Your task to perform on an android device: open the mobile data screen to see how much data has been used Image 0: 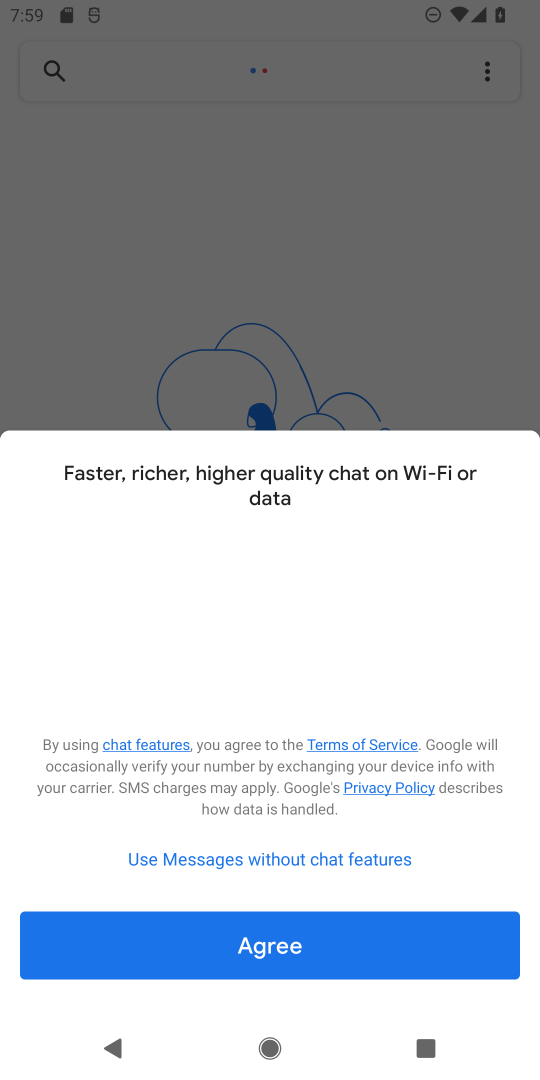
Step 0: press home button
Your task to perform on an android device: open the mobile data screen to see how much data has been used Image 1: 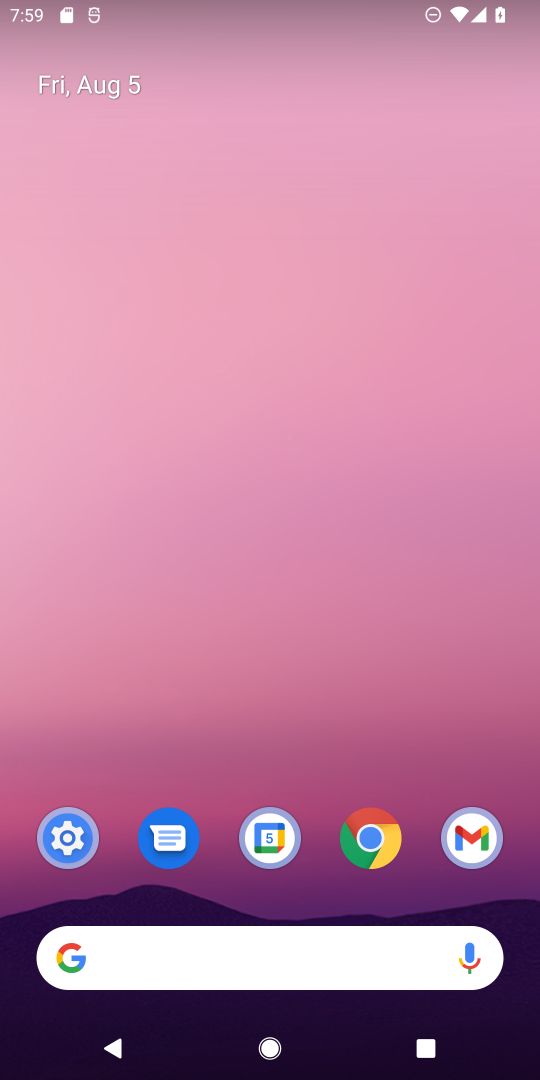
Step 1: click (293, 305)
Your task to perform on an android device: open the mobile data screen to see how much data has been used Image 2: 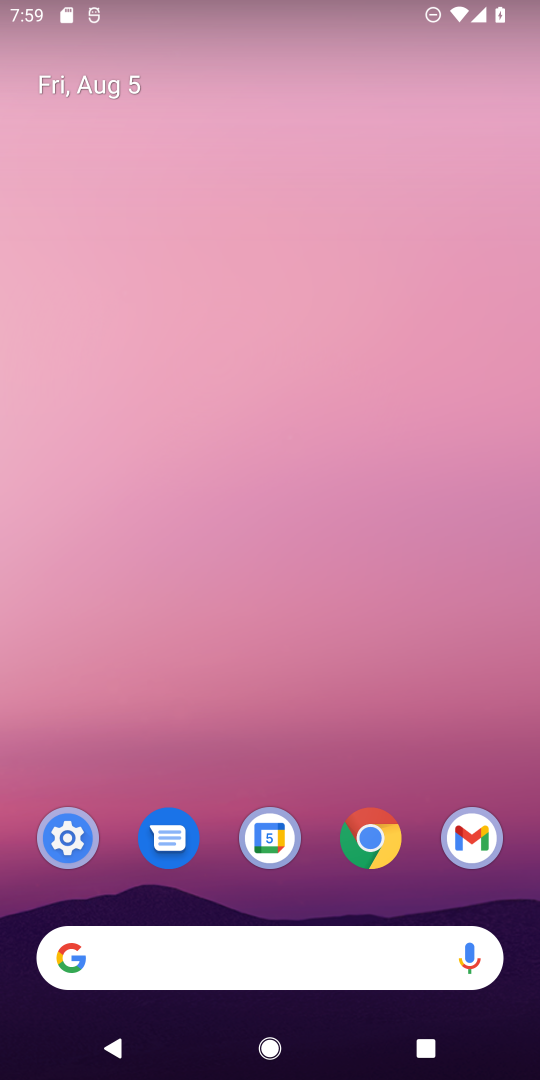
Step 2: drag from (260, 917) to (263, 329)
Your task to perform on an android device: open the mobile data screen to see how much data has been used Image 3: 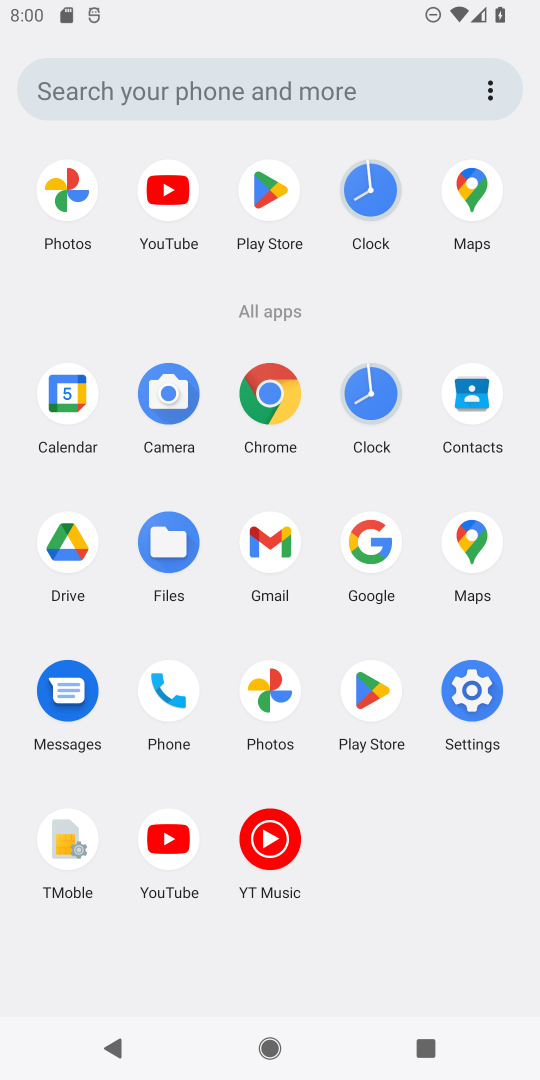
Step 3: click (477, 692)
Your task to perform on an android device: open the mobile data screen to see how much data has been used Image 4: 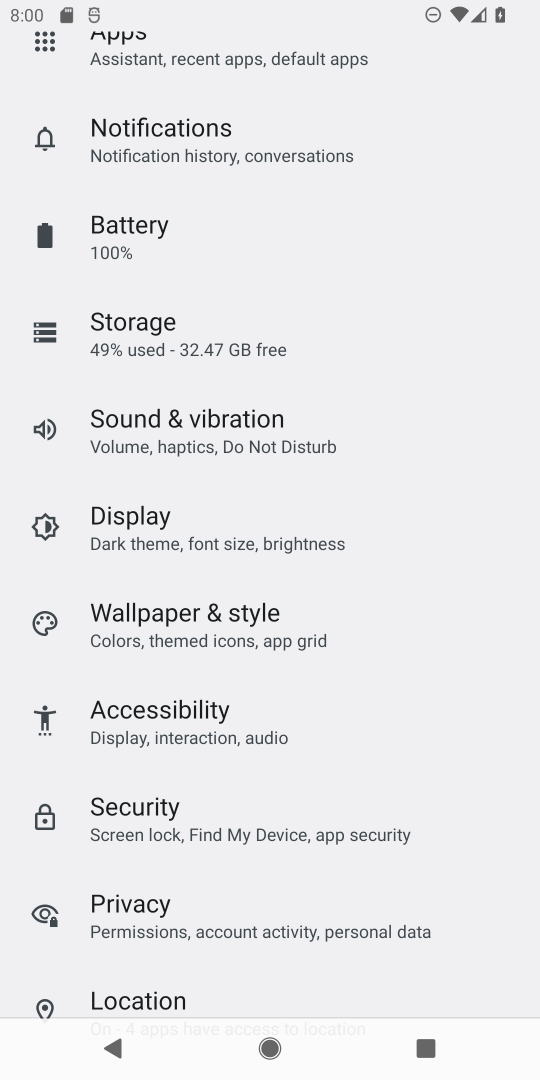
Step 4: drag from (275, 124) to (301, 806)
Your task to perform on an android device: open the mobile data screen to see how much data has been used Image 5: 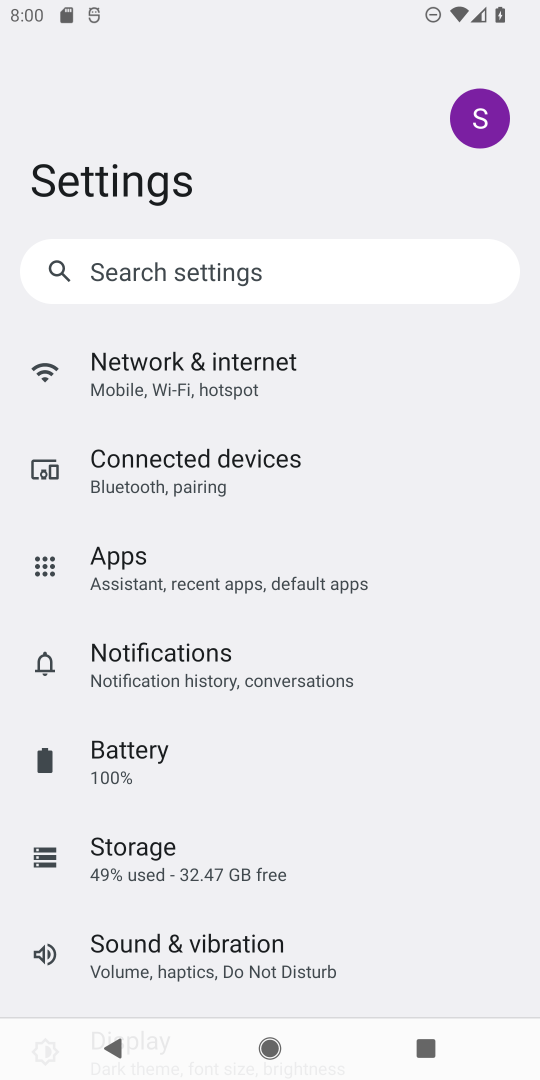
Step 5: click (169, 382)
Your task to perform on an android device: open the mobile data screen to see how much data has been used Image 6: 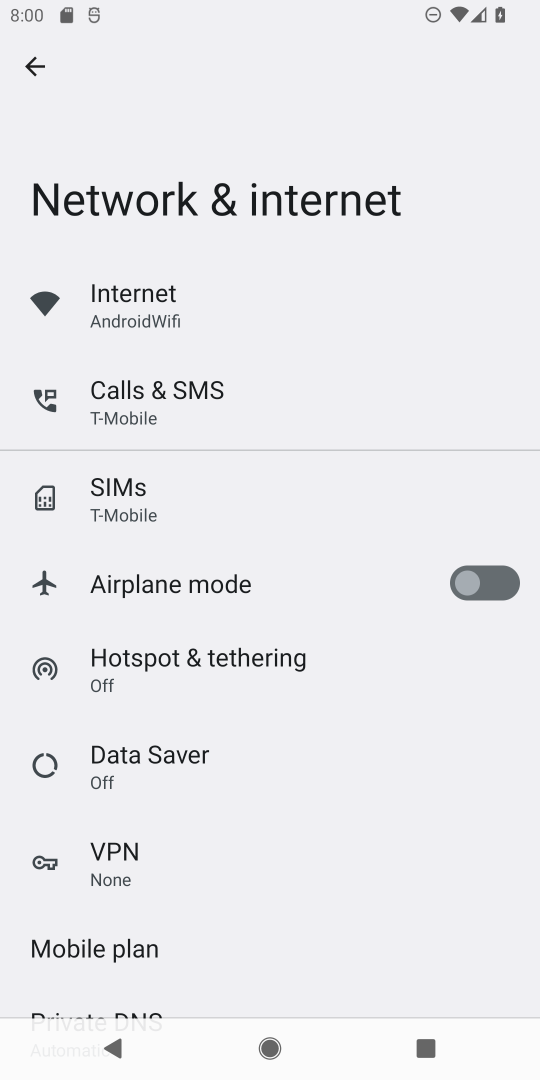
Step 6: click (131, 304)
Your task to perform on an android device: open the mobile data screen to see how much data has been used Image 7: 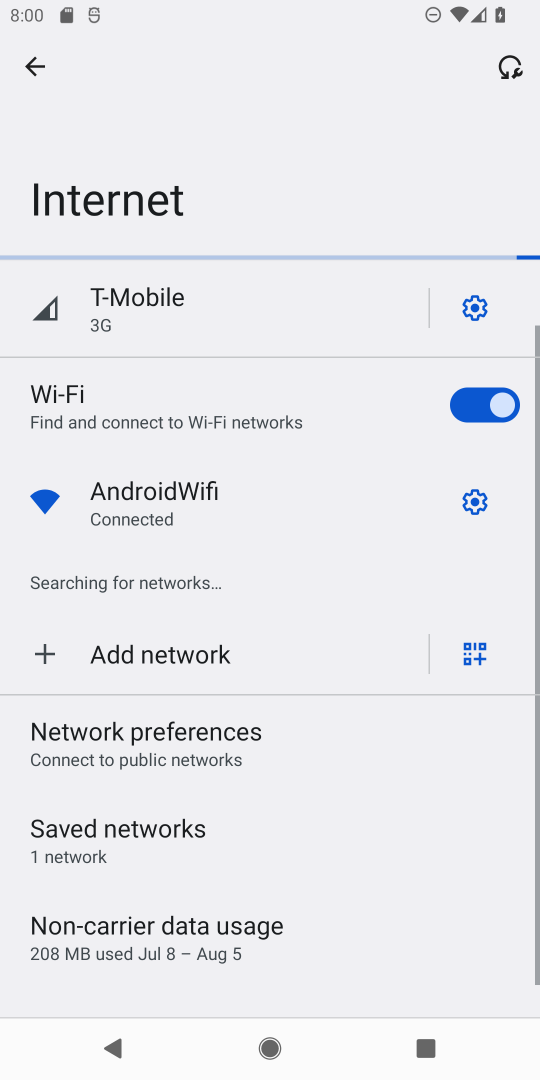
Step 7: click (170, 956)
Your task to perform on an android device: open the mobile data screen to see how much data has been used Image 8: 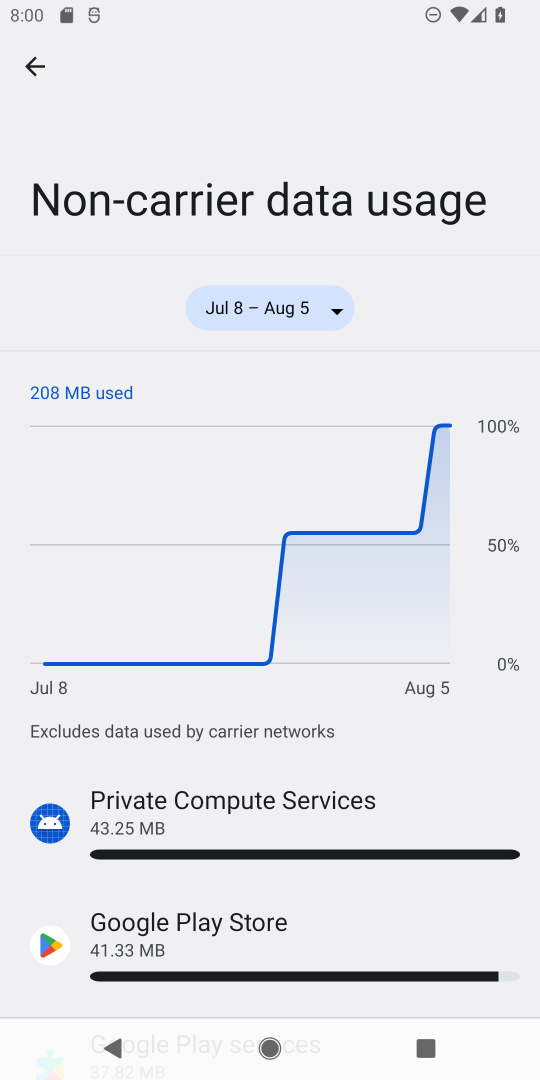
Step 8: task complete